Your task to perform on an android device: Go to network settings Image 0: 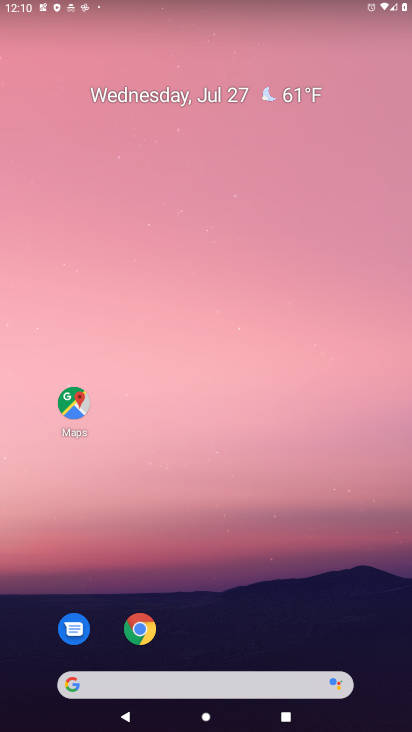
Step 0: drag from (226, 643) to (223, 51)
Your task to perform on an android device: Go to network settings Image 1: 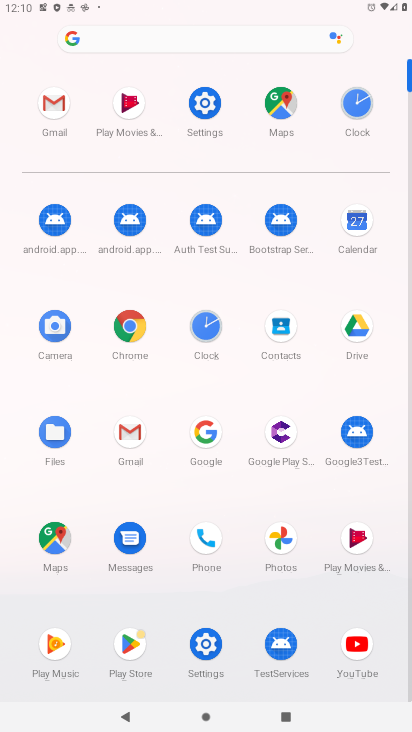
Step 1: click (201, 113)
Your task to perform on an android device: Go to network settings Image 2: 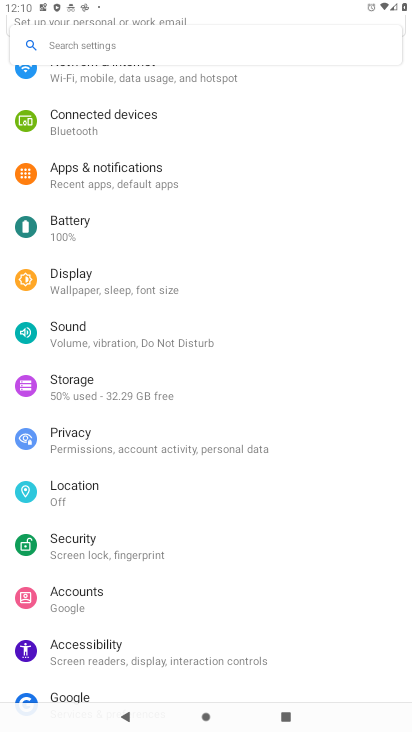
Step 2: click (256, 93)
Your task to perform on an android device: Go to network settings Image 3: 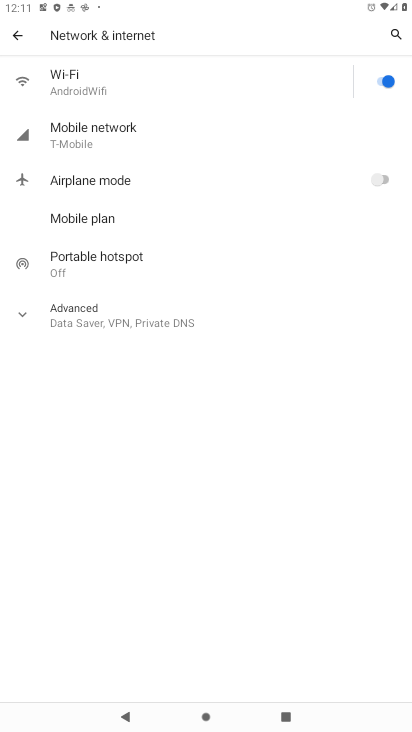
Step 3: task complete